Your task to perform on an android device: see creations saved in the google photos Image 0: 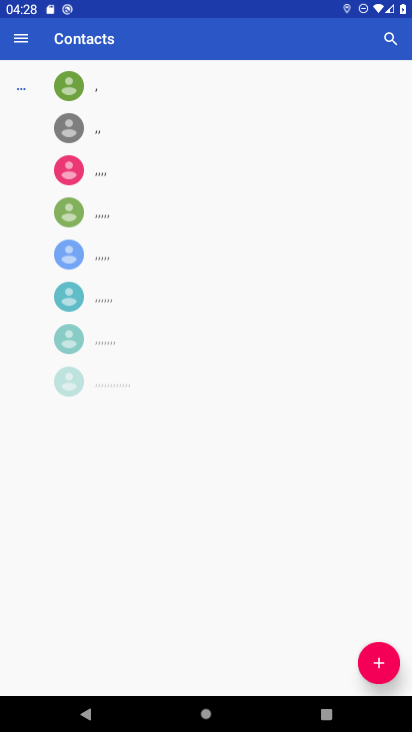
Step 0: click (125, 641)
Your task to perform on an android device: see creations saved in the google photos Image 1: 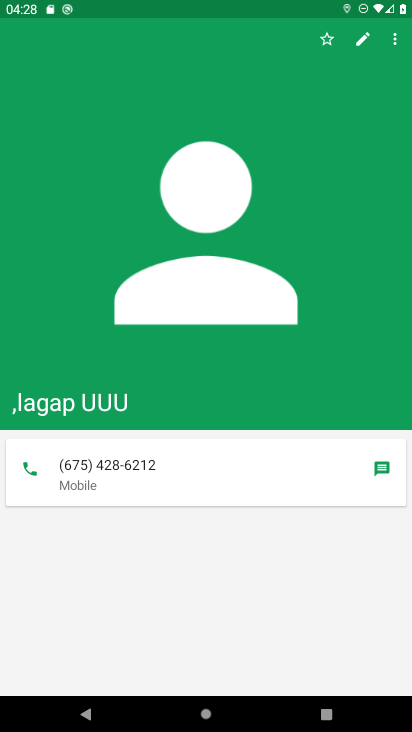
Step 1: press home button
Your task to perform on an android device: see creations saved in the google photos Image 2: 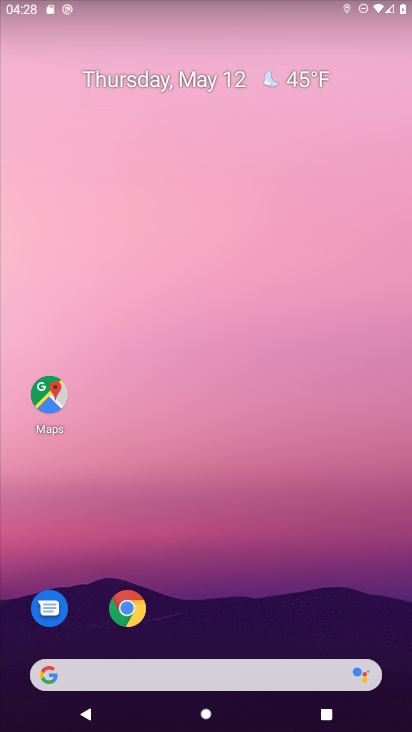
Step 2: drag from (236, 601) to (181, 107)
Your task to perform on an android device: see creations saved in the google photos Image 3: 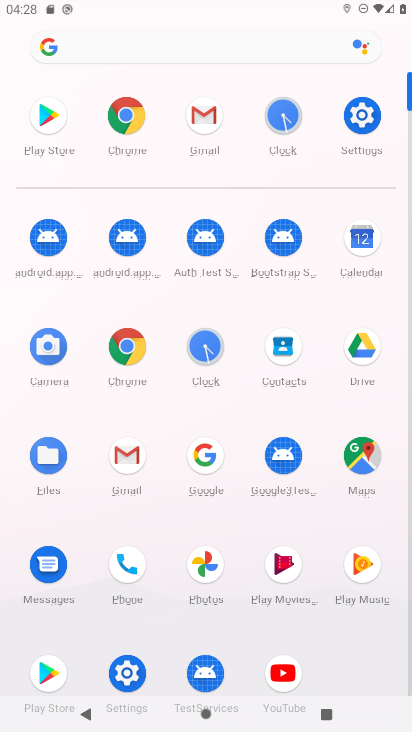
Step 3: click (212, 556)
Your task to perform on an android device: see creations saved in the google photos Image 4: 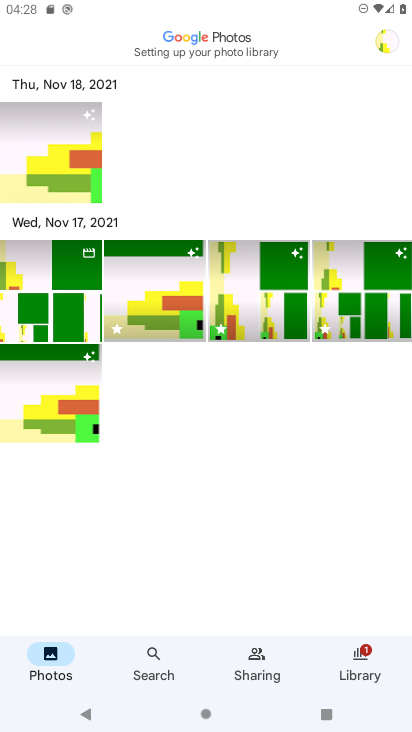
Step 4: click (360, 676)
Your task to perform on an android device: see creations saved in the google photos Image 5: 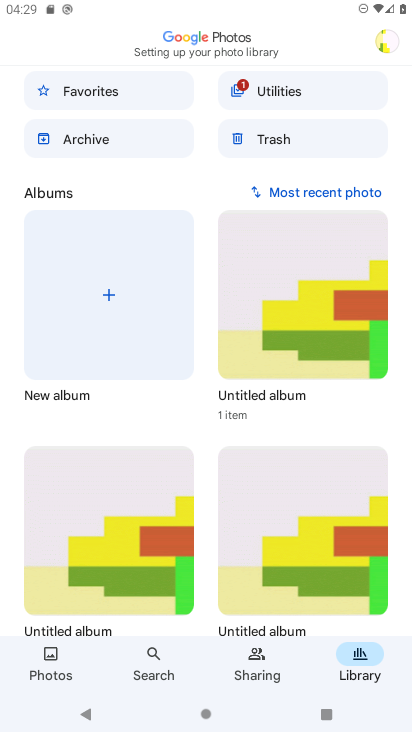
Step 5: click (116, 139)
Your task to perform on an android device: see creations saved in the google photos Image 6: 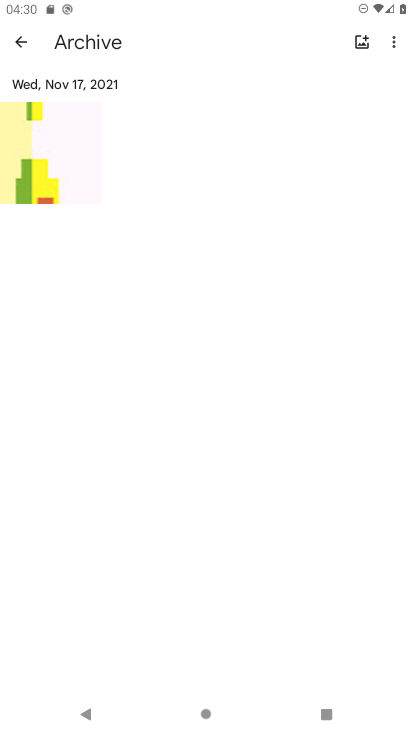
Step 6: task complete